Your task to perform on an android device: Go to calendar. Show me events next week Image 0: 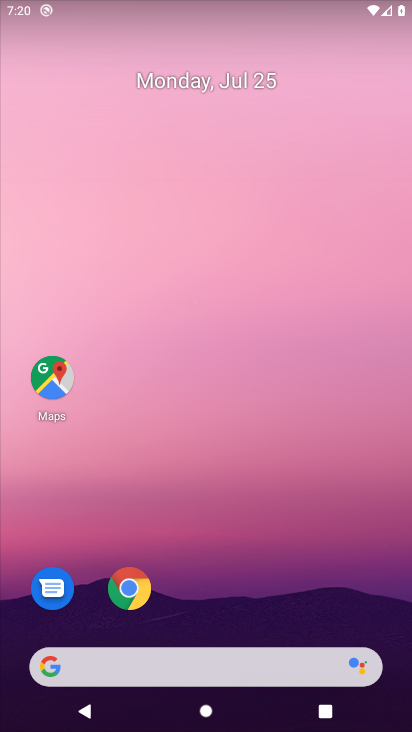
Step 0: drag from (234, 477) to (259, 324)
Your task to perform on an android device: Go to calendar. Show me events next week Image 1: 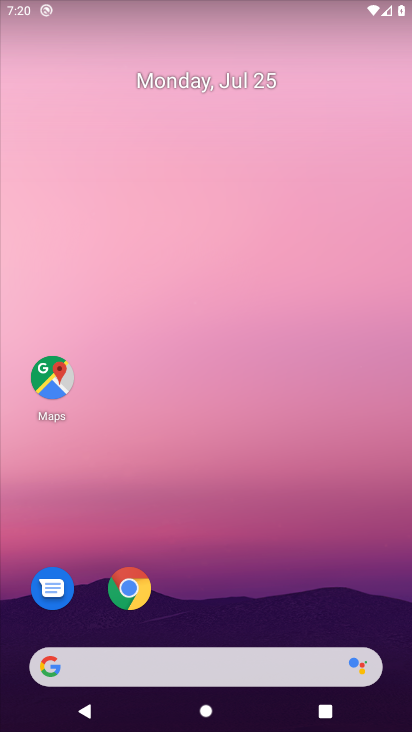
Step 1: drag from (280, 514) to (289, 111)
Your task to perform on an android device: Go to calendar. Show me events next week Image 2: 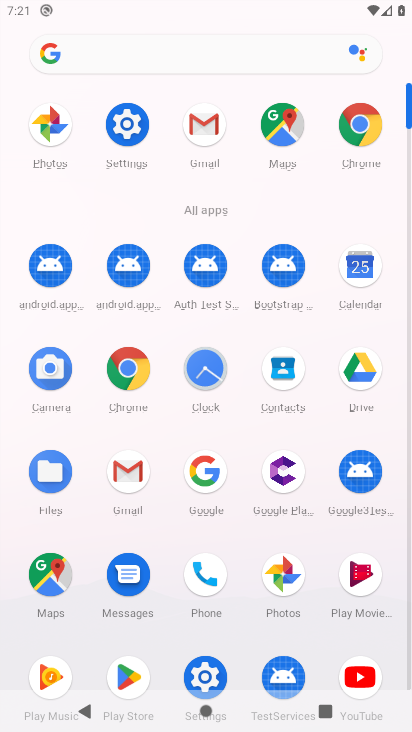
Step 2: click (364, 267)
Your task to perform on an android device: Go to calendar. Show me events next week Image 3: 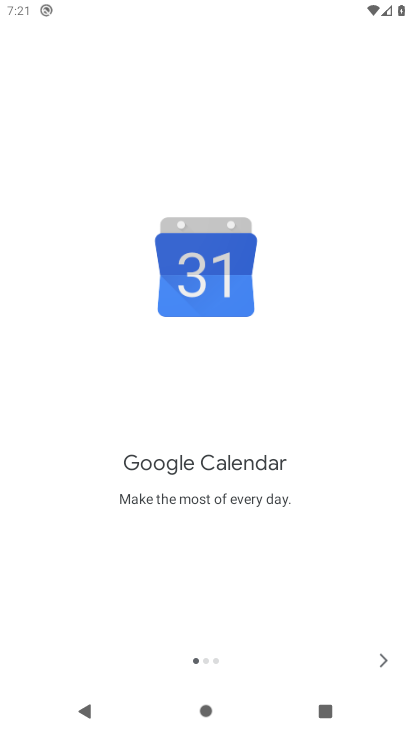
Step 3: click (384, 659)
Your task to perform on an android device: Go to calendar. Show me events next week Image 4: 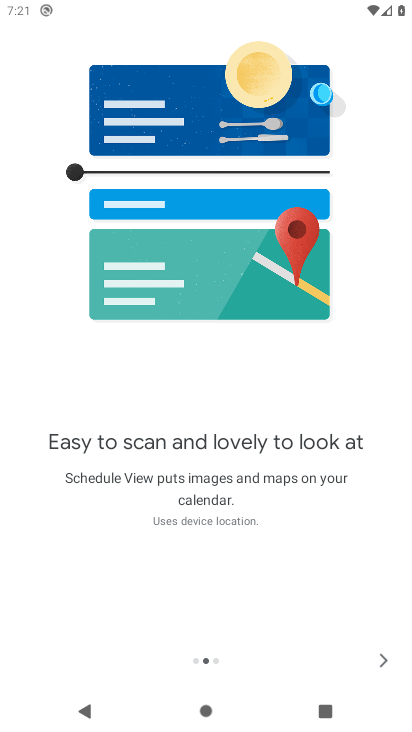
Step 4: click (384, 659)
Your task to perform on an android device: Go to calendar. Show me events next week Image 5: 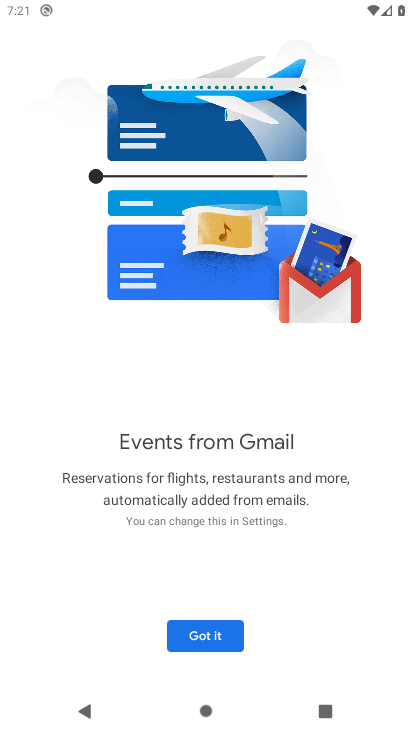
Step 5: click (384, 659)
Your task to perform on an android device: Go to calendar. Show me events next week Image 6: 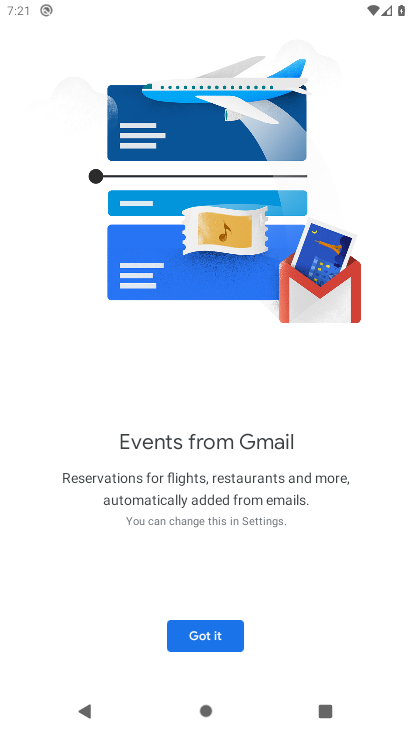
Step 6: click (210, 636)
Your task to perform on an android device: Go to calendar. Show me events next week Image 7: 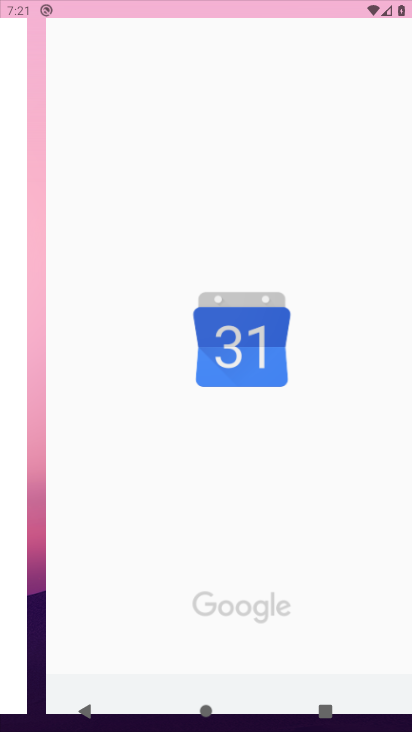
Step 7: click (210, 636)
Your task to perform on an android device: Go to calendar. Show me events next week Image 8: 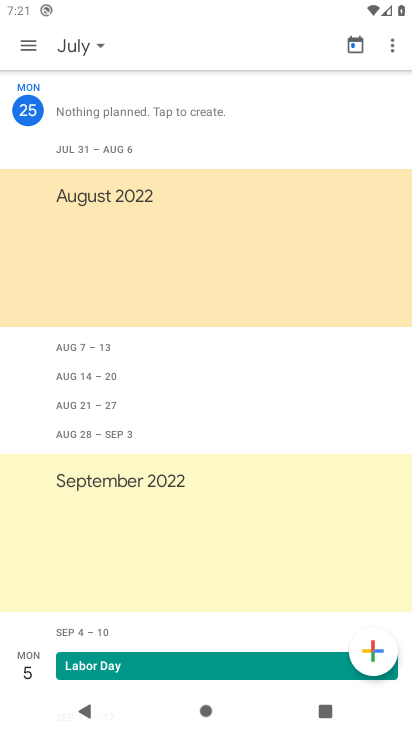
Step 8: task complete